Your task to perform on an android device: Go to sound settings Image 0: 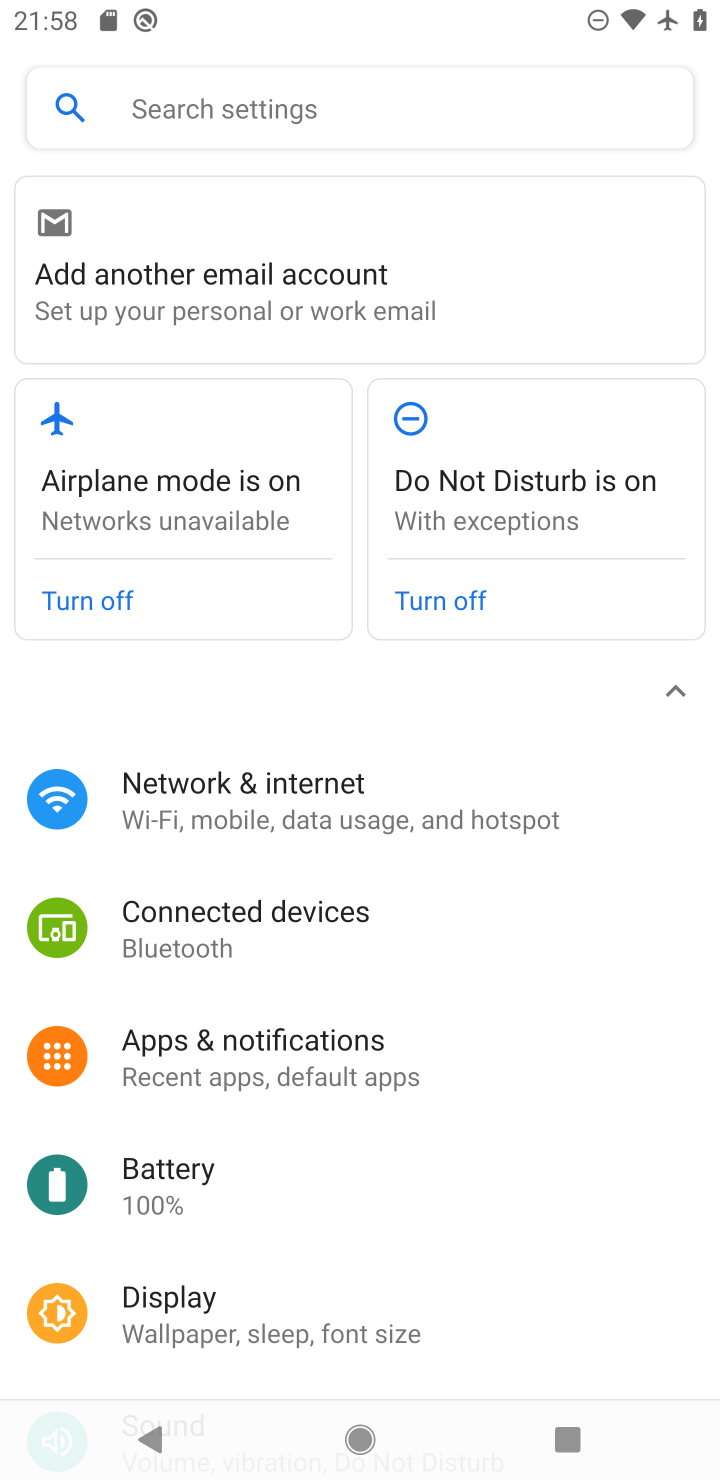
Step 0: press home button
Your task to perform on an android device: Go to sound settings Image 1: 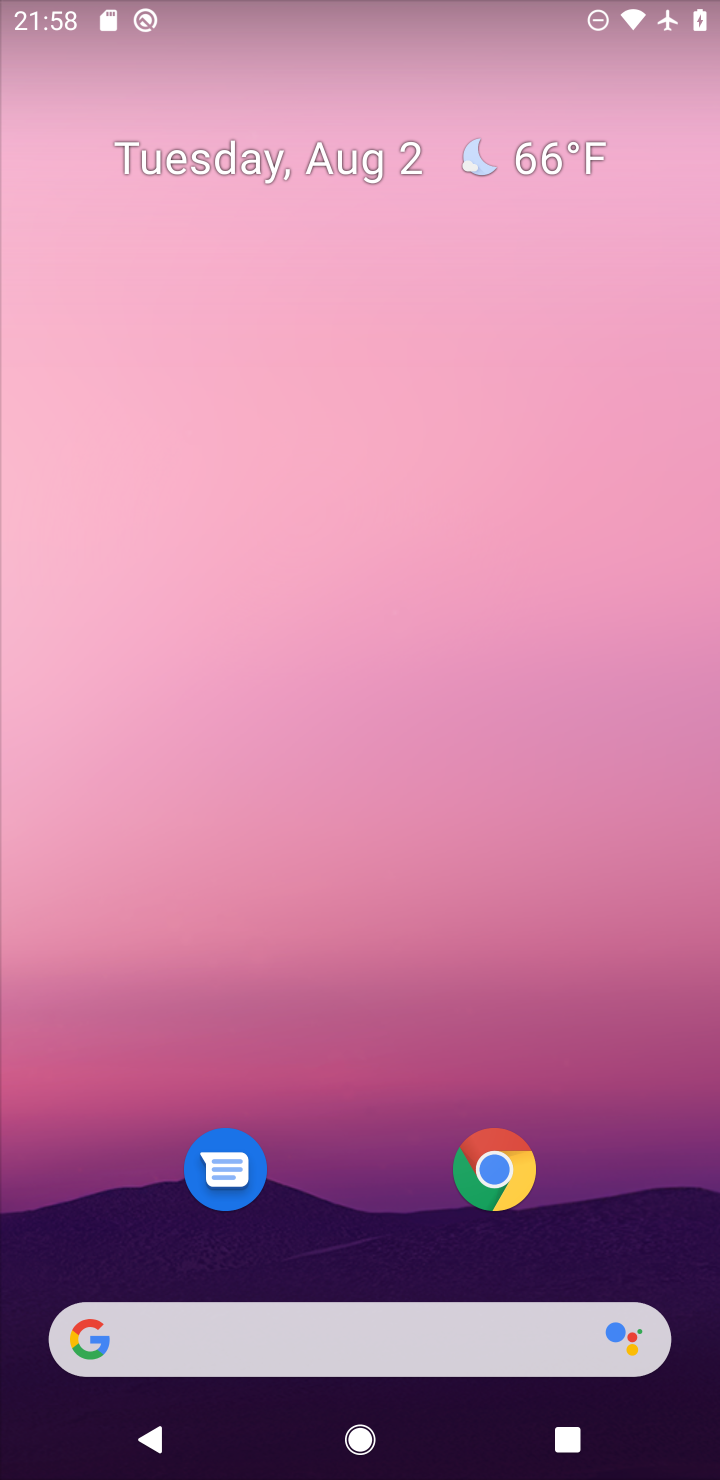
Step 1: drag from (370, 1212) to (323, 96)
Your task to perform on an android device: Go to sound settings Image 2: 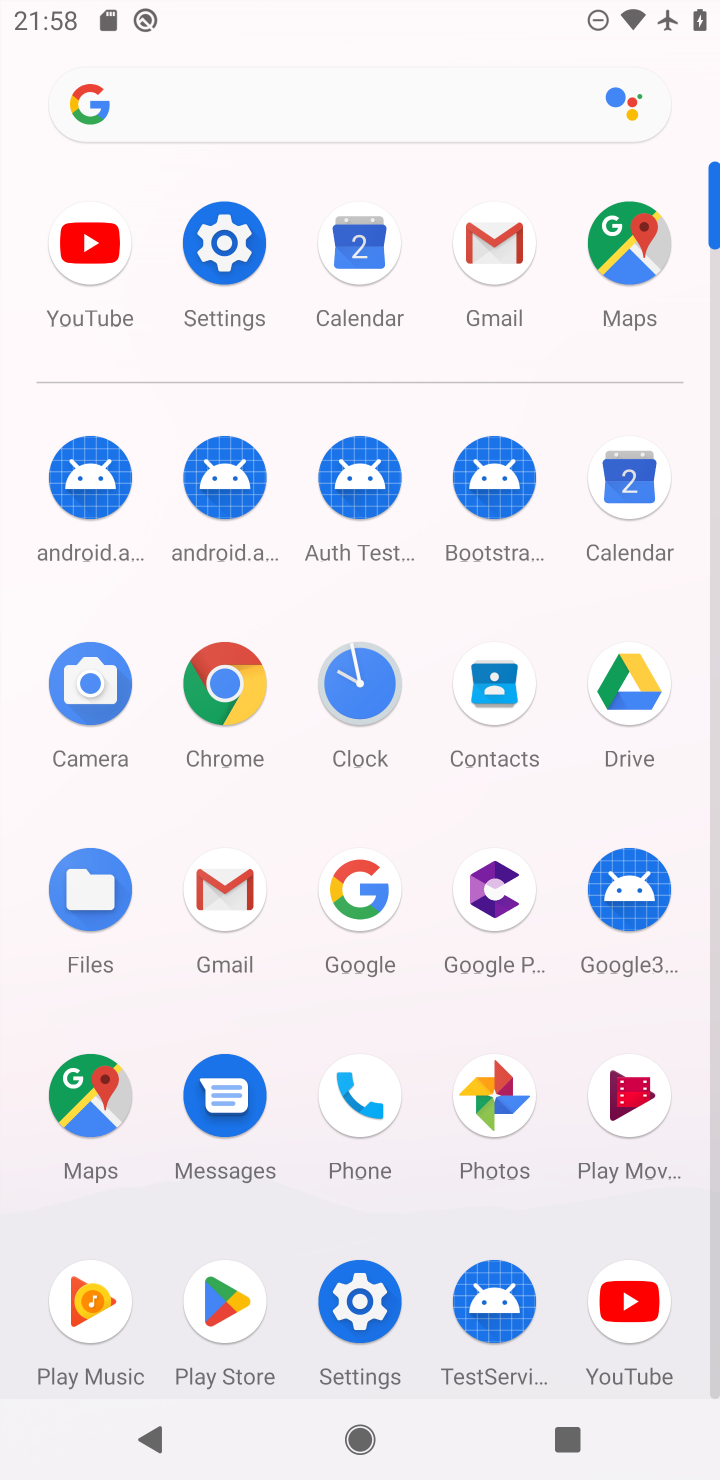
Step 2: click (218, 240)
Your task to perform on an android device: Go to sound settings Image 3: 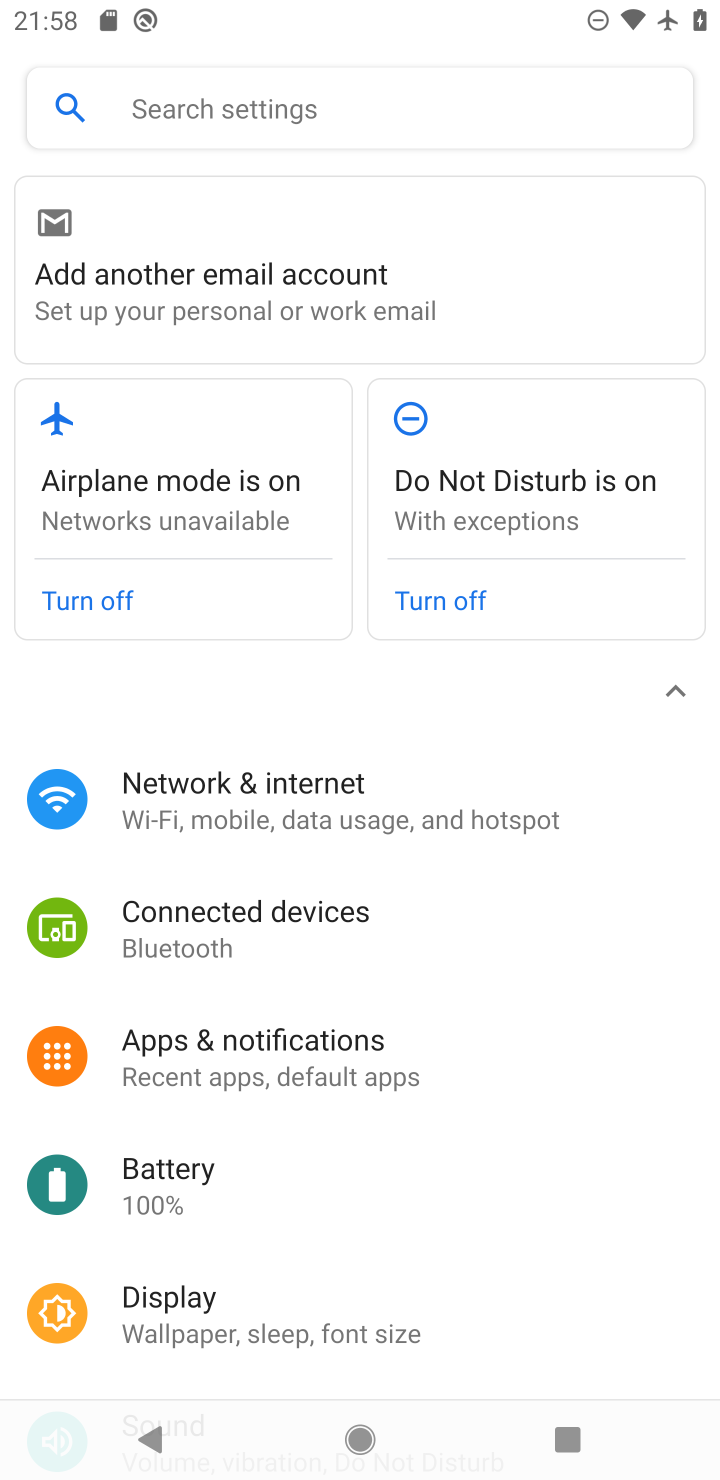
Step 3: drag from (163, 1191) to (171, 722)
Your task to perform on an android device: Go to sound settings Image 4: 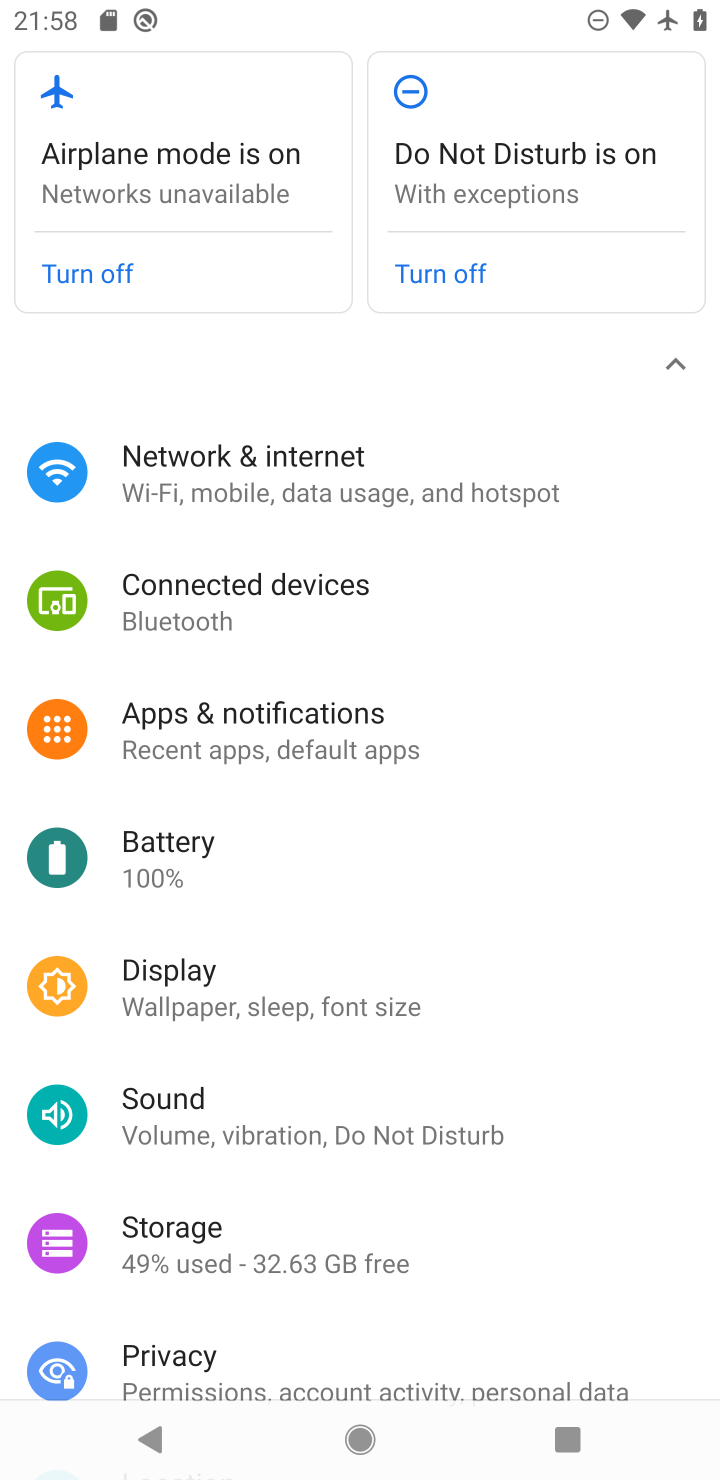
Step 4: click (186, 1107)
Your task to perform on an android device: Go to sound settings Image 5: 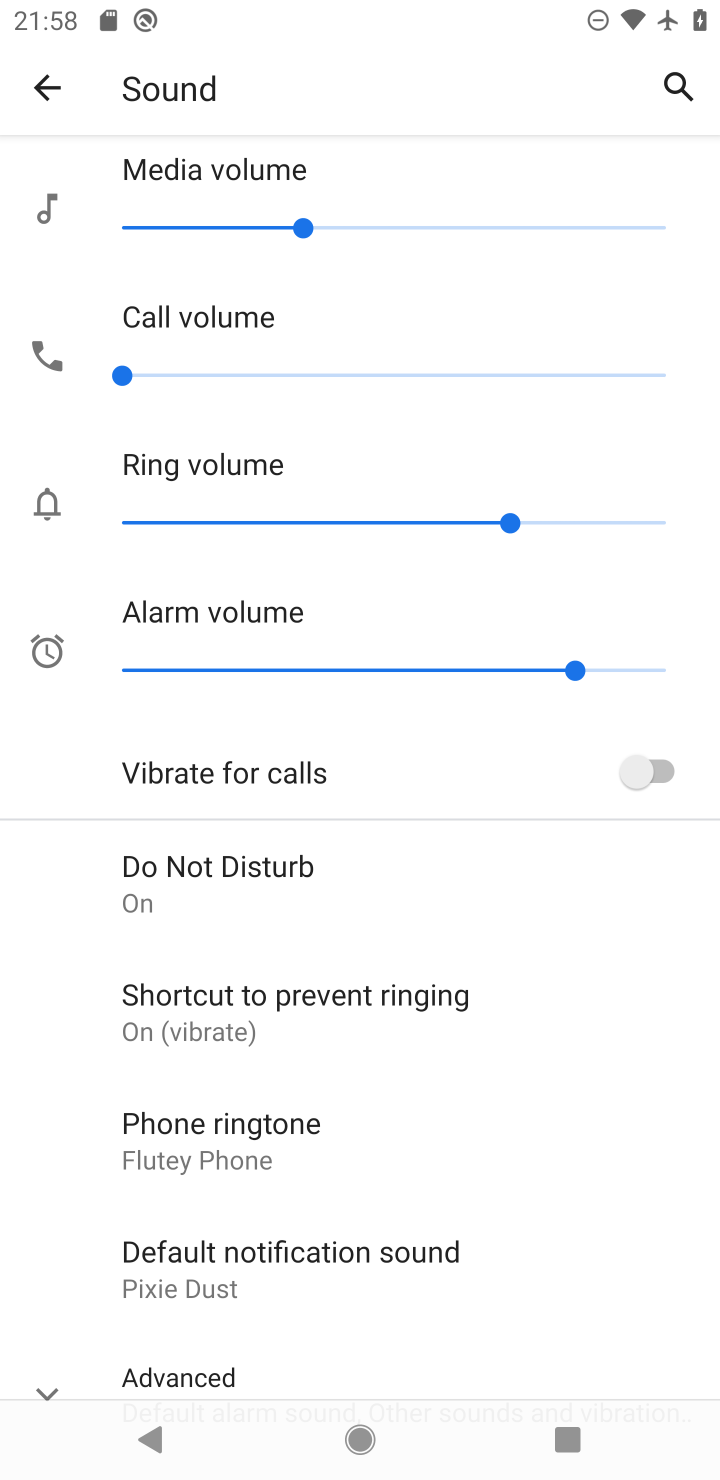
Step 5: task complete